Your task to perform on an android device: Clear all items from cart on amazon.com. Add "corsair k70" to the cart on amazon.com, then select checkout. Image 0: 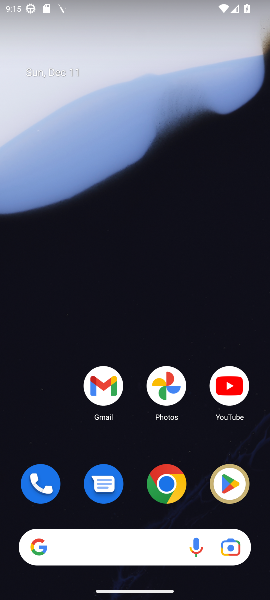
Step 0: click (157, 497)
Your task to perform on an android device: Clear all items from cart on amazon.com. Add "corsair k70" to the cart on amazon.com, then select checkout. Image 1: 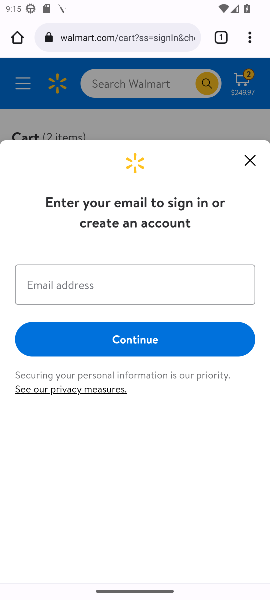
Step 1: click (121, 41)
Your task to perform on an android device: Clear all items from cart on amazon.com. Add "corsair k70" to the cart on amazon.com, then select checkout. Image 2: 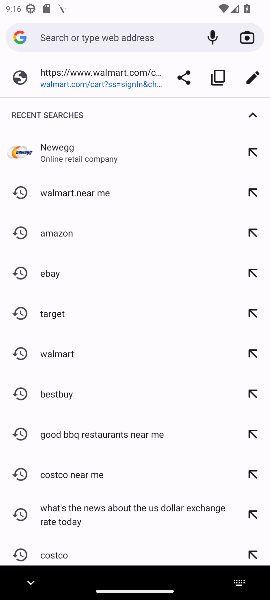
Step 2: click (70, 235)
Your task to perform on an android device: Clear all items from cart on amazon.com. Add "corsair k70" to the cart on amazon.com, then select checkout. Image 3: 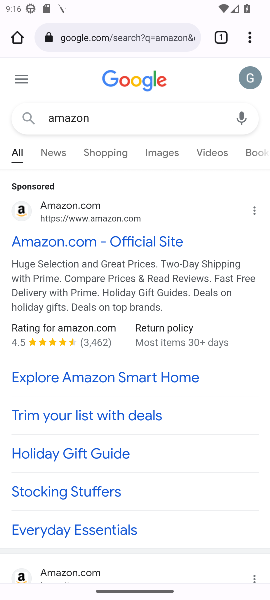
Step 3: click (70, 235)
Your task to perform on an android device: Clear all items from cart on amazon.com. Add "corsair k70" to the cart on amazon.com, then select checkout. Image 4: 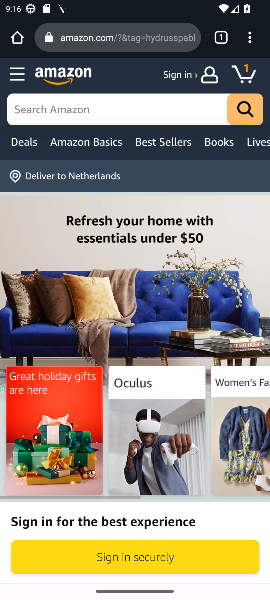
Step 4: click (242, 77)
Your task to perform on an android device: Clear all items from cart on amazon.com. Add "corsair k70" to the cart on amazon.com, then select checkout. Image 5: 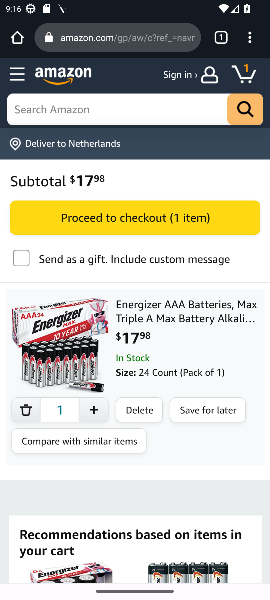
Step 5: click (30, 405)
Your task to perform on an android device: Clear all items from cart on amazon.com. Add "corsair k70" to the cart on amazon.com, then select checkout. Image 6: 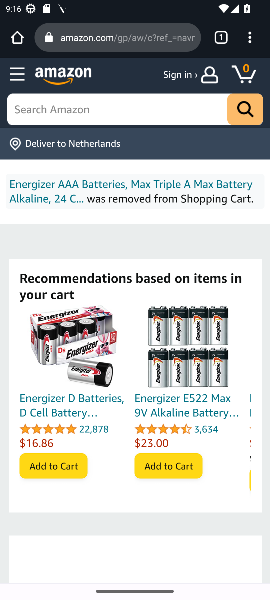
Step 6: click (139, 116)
Your task to perform on an android device: Clear all items from cart on amazon.com. Add "corsair k70" to the cart on amazon.com, then select checkout. Image 7: 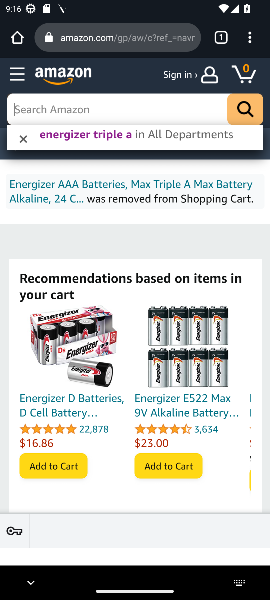
Step 7: type "corsair k70"
Your task to perform on an android device: Clear all items from cart on amazon.com. Add "corsair k70" to the cart on amazon.com, then select checkout. Image 8: 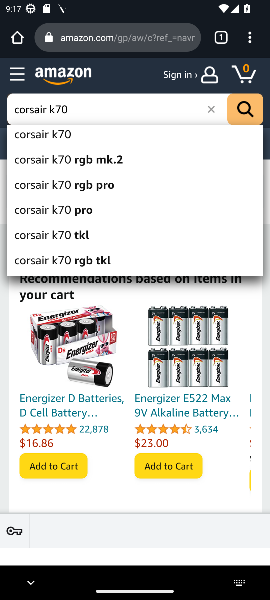
Step 8: click (250, 105)
Your task to perform on an android device: Clear all items from cart on amazon.com. Add "corsair k70" to the cart on amazon.com, then select checkout. Image 9: 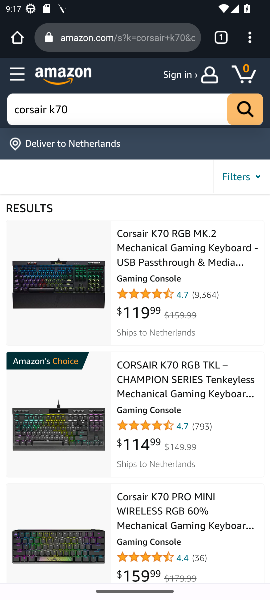
Step 9: click (159, 264)
Your task to perform on an android device: Clear all items from cart on amazon.com. Add "corsair k70" to the cart on amazon.com, then select checkout. Image 10: 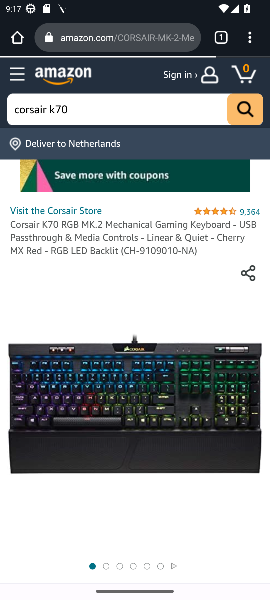
Step 10: drag from (99, 503) to (124, 201)
Your task to perform on an android device: Clear all items from cart on amazon.com. Add "corsair k70" to the cart on amazon.com, then select checkout. Image 11: 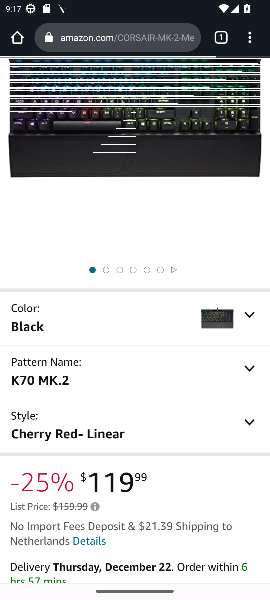
Step 11: drag from (155, 487) to (198, 174)
Your task to perform on an android device: Clear all items from cart on amazon.com. Add "corsair k70" to the cart on amazon.com, then select checkout. Image 12: 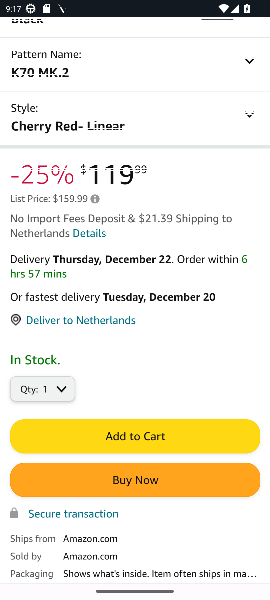
Step 12: click (175, 436)
Your task to perform on an android device: Clear all items from cart on amazon.com. Add "corsair k70" to the cart on amazon.com, then select checkout. Image 13: 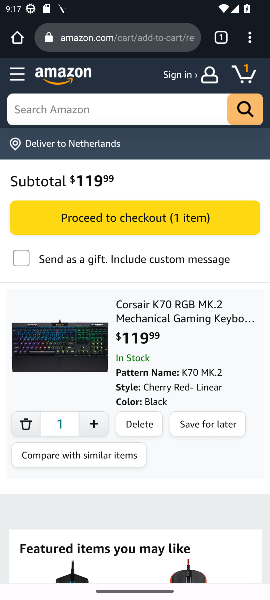
Step 13: click (138, 214)
Your task to perform on an android device: Clear all items from cart on amazon.com. Add "corsair k70" to the cart on amazon.com, then select checkout. Image 14: 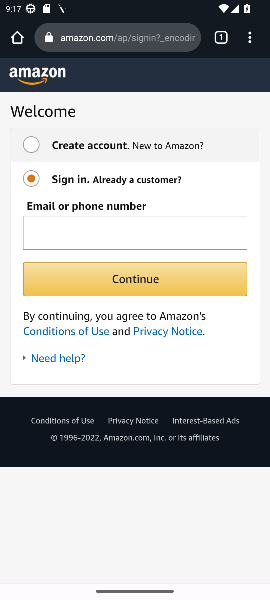
Step 14: task complete